Your task to perform on an android device: turn on javascript in the chrome app Image 0: 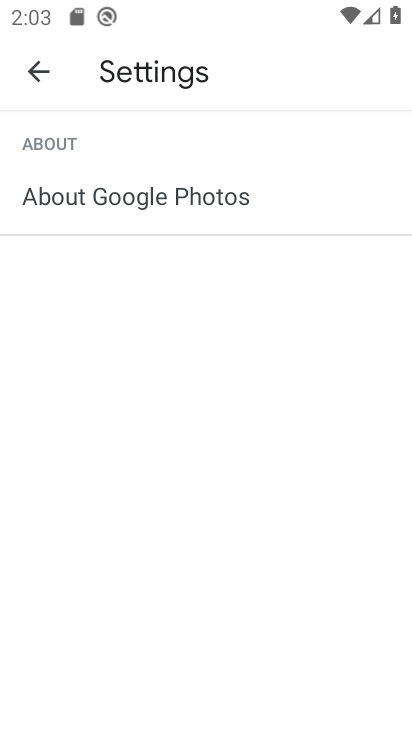
Step 0: press home button
Your task to perform on an android device: turn on javascript in the chrome app Image 1: 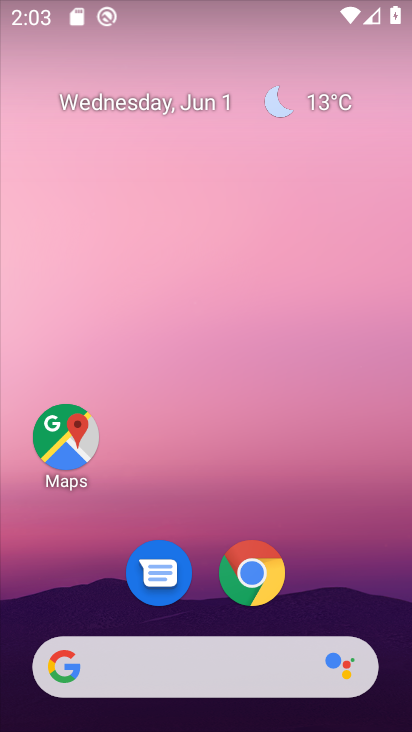
Step 1: click (261, 555)
Your task to perform on an android device: turn on javascript in the chrome app Image 2: 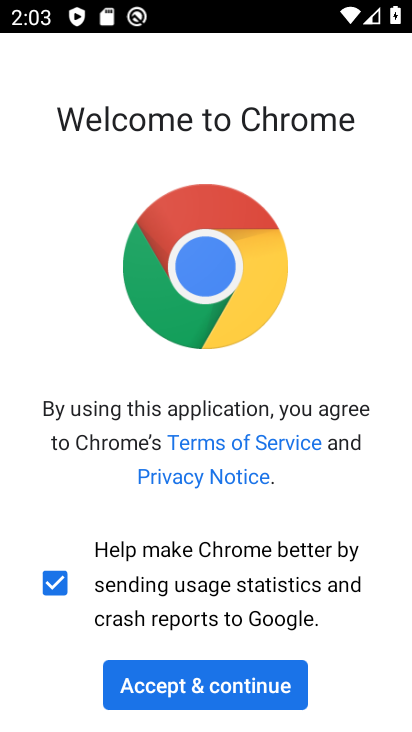
Step 2: click (187, 672)
Your task to perform on an android device: turn on javascript in the chrome app Image 3: 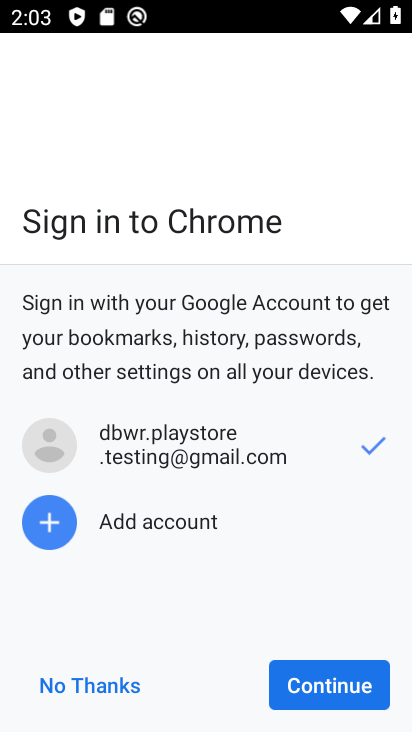
Step 3: click (331, 699)
Your task to perform on an android device: turn on javascript in the chrome app Image 4: 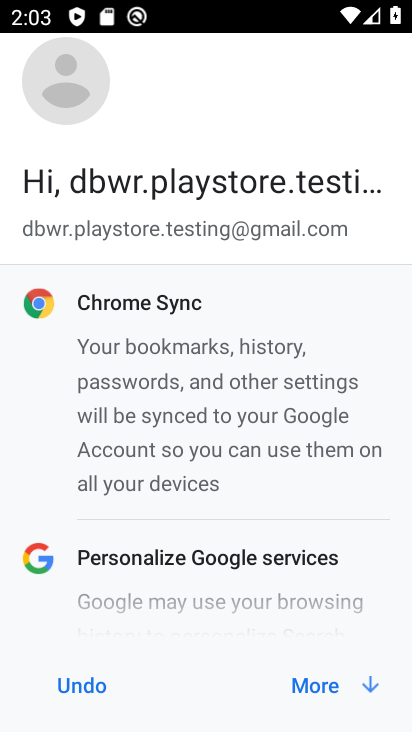
Step 4: click (343, 687)
Your task to perform on an android device: turn on javascript in the chrome app Image 5: 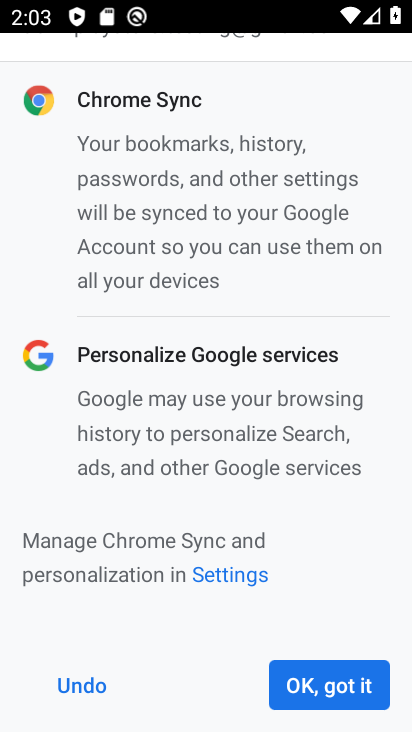
Step 5: click (355, 694)
Your task to perform on an android device: turn on javascript in the chrome app Image 6: 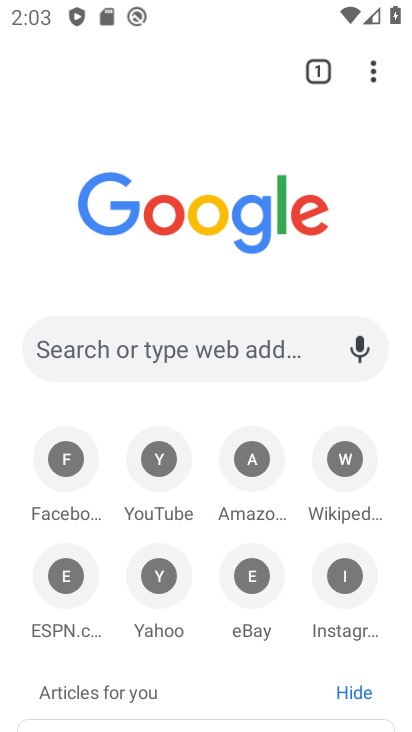
Step 6: drag from (370, 75) to (137, 609)
Your task to perform on an android device: turn on javascript in the chrome app Image 7: 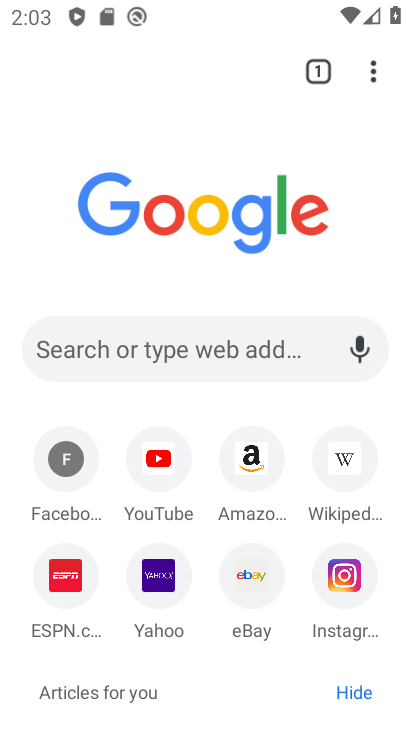
Step 7: drag from (106, 624) to (89, 357)
Your task to perform on an android device: turn on javascript in the chrome app Image 8: 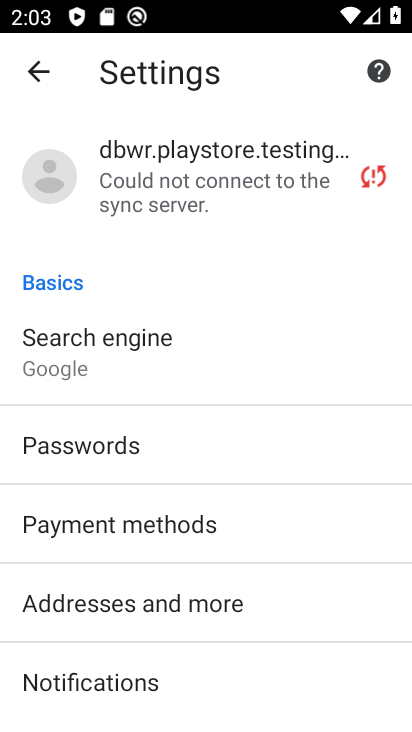
Step 8: drag from (135, 206) to (146, 143)
Your task to perform on an android device: turn on javascript in the chrome app Image 9: 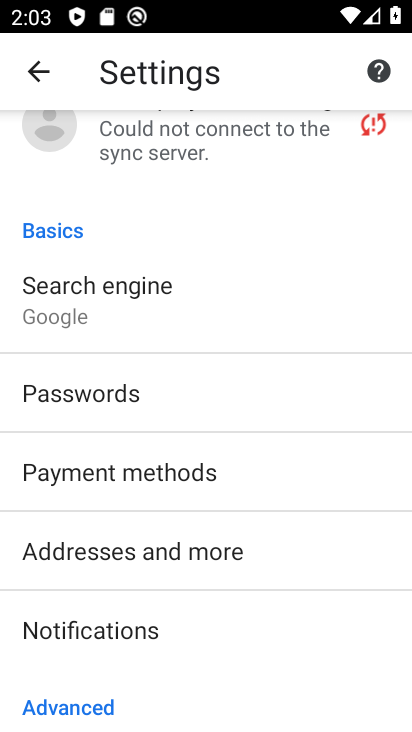
Step 9: drag from (182, 615) to (191, 335)
Your task to perform on an android device: turn on javascript in the chrome app Image 10: 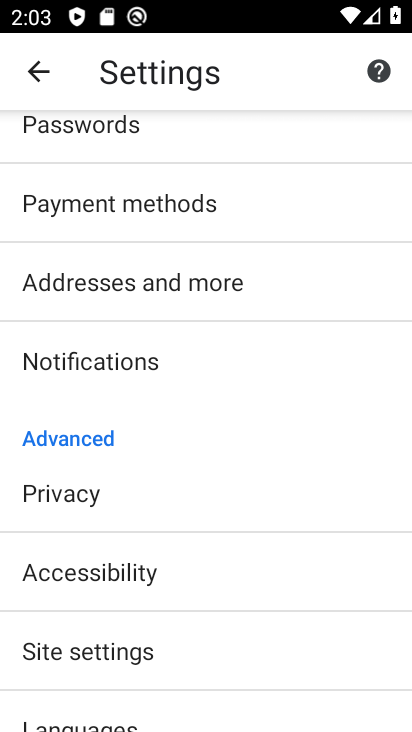
Step 10: click (143, 643)
Your task to perform on an android device: turn on javascript in the chrome app Image 11: 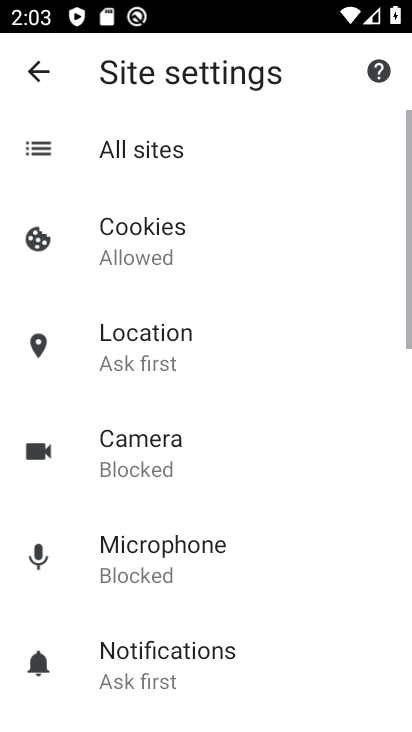
Step 11: drag from (152, 601) to (112, 194)
Your task to perform on an android device: turn on javascript in the chrome app Image 12: 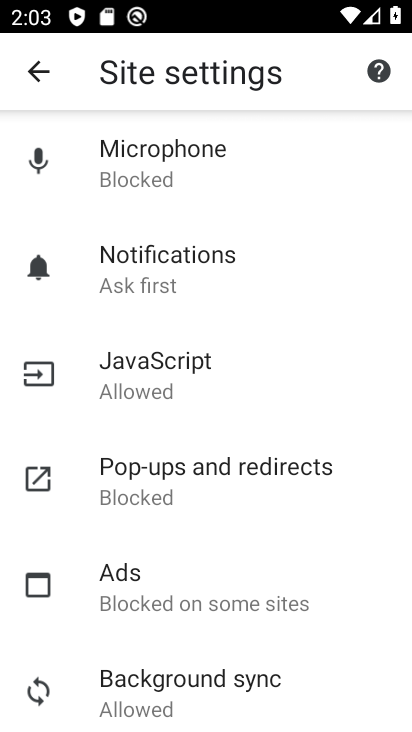
Step 12: click (123, 382)
Your task to perform on an android device: turn on javascript in the chrome app Image 13: 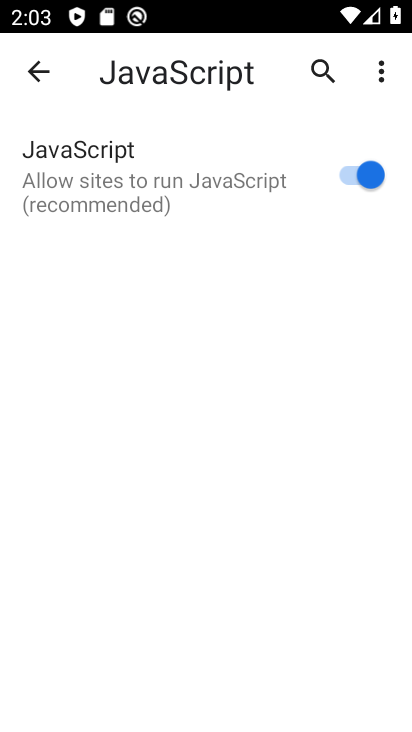
Step 13: task complete